Your task to perform on an android device: open a new tab in the chrome app Image 0: 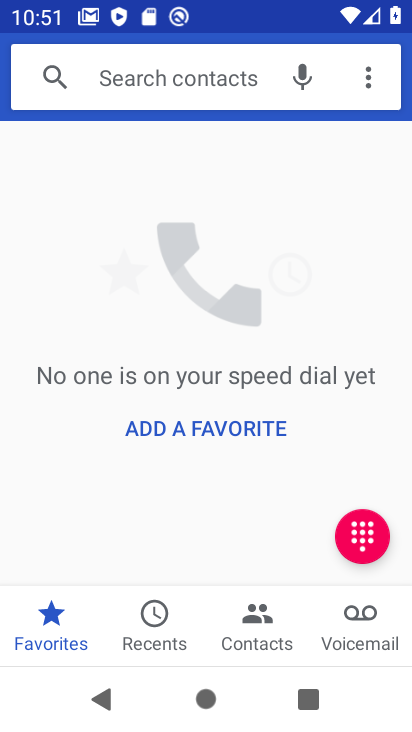
Step 0: press home button
Your task to perform on an android device: open a new tab in the chrome app Image 1: 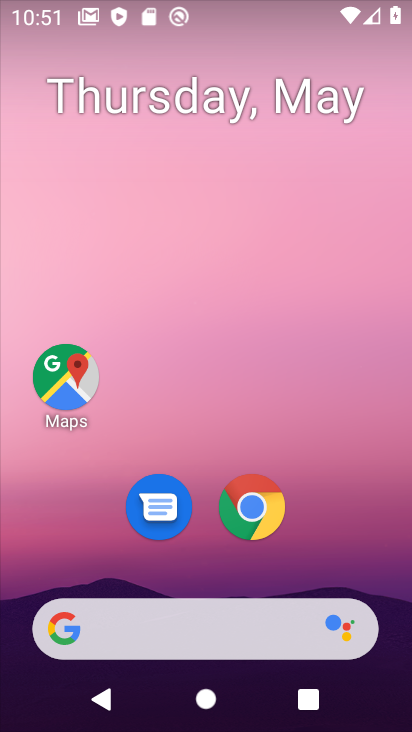
Step 1: click (240, 514)
Your task to perform on an android device: open a new tab in the chrome app Image 2: 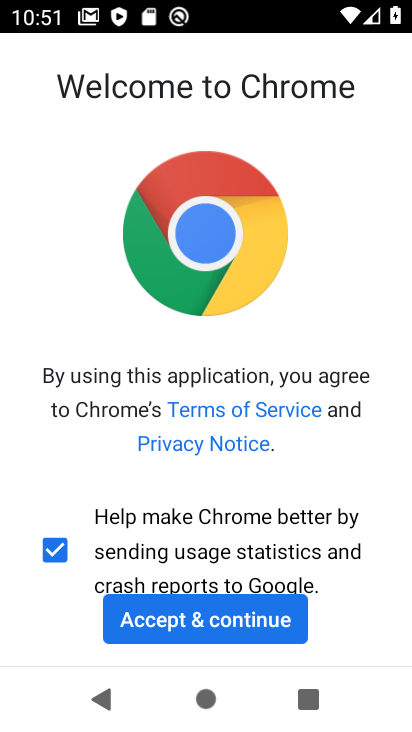
Step 2: click (156, 623)
Your task to perform on an android device: open a new tab in the chrome app Image 3: 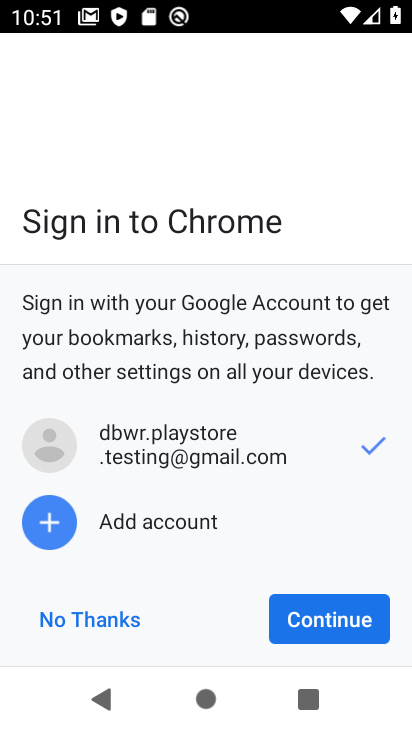
Step 3: click (293, 610)
Your task to perform on an android device: open a new tab in the chrome app Image 4: 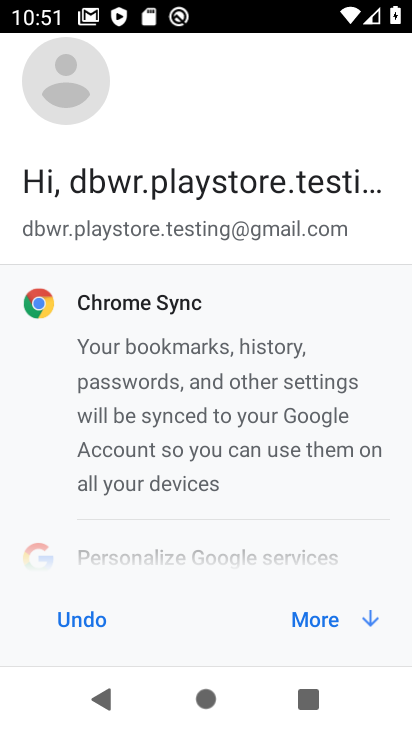
Step 4: click (341, 623)
Your task to perform on an android device: open a new tab in the chrome app Image 5: 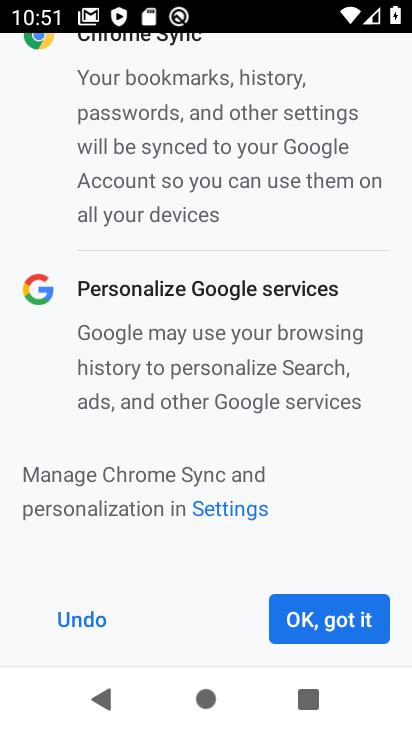
Step 5: click (341, 623)
Your task to perform on an android device: open a new tab in the chrome app Image 6: 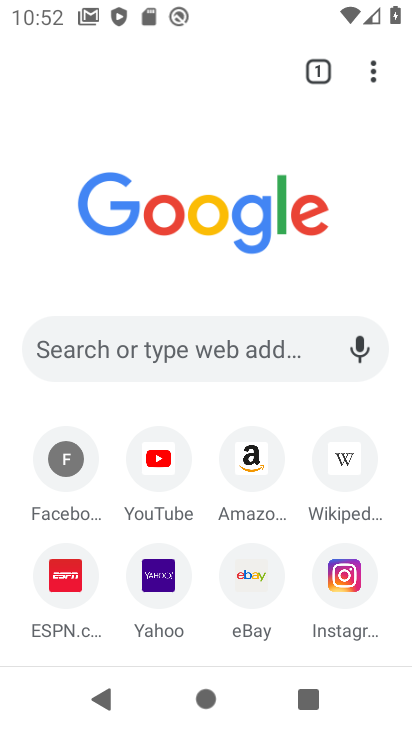
Step 6: drag from (178, 45) to (190, 178)
Your task to perform on an android device: open a new tab in the chrome app Image 7: 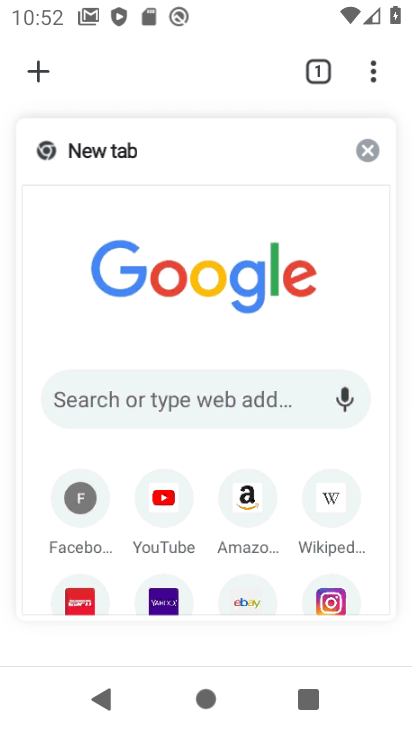
Step 7: click (31, 75)
Your task to perform on an android device: open a new tab in the chrome app Image 8: 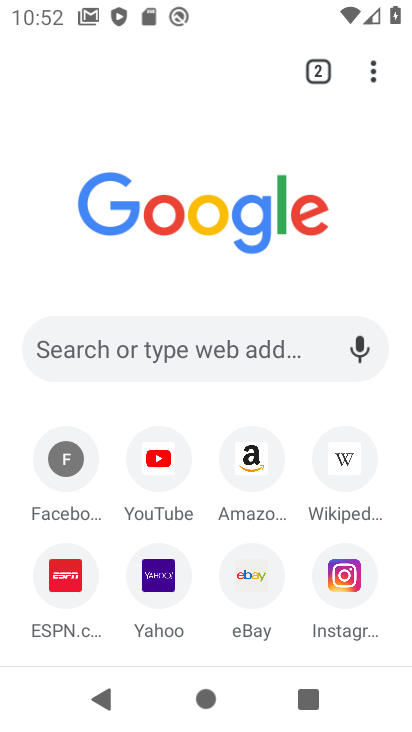
Step 8: task complete